Your task to perform on an android device: Open battery settings Image 0: 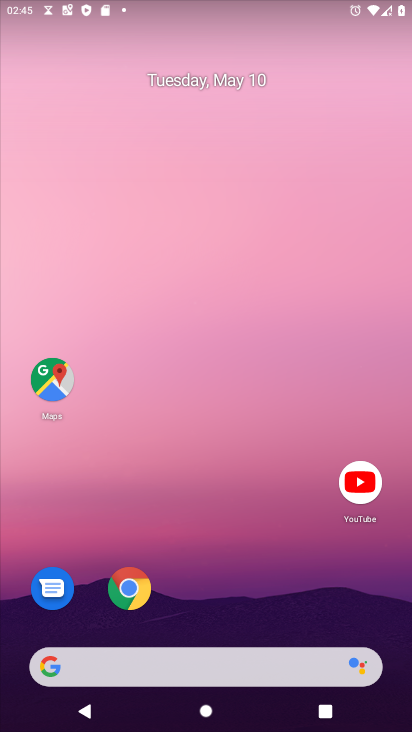
Step 0: drag from (229, 574) to (240, 295)
Your task to perform on an android device: Open battery settings Image 1: 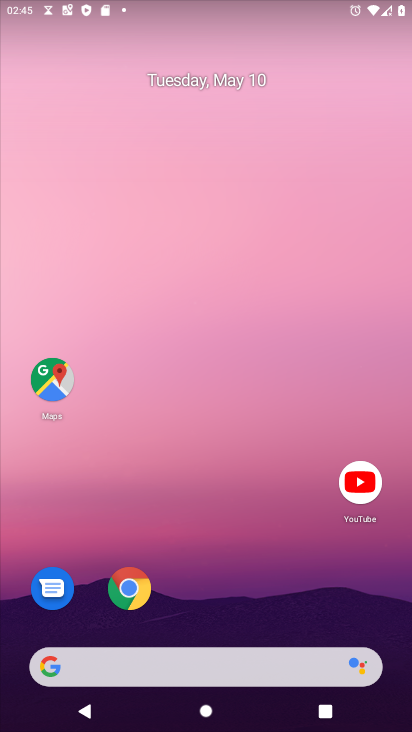
Step 1: drag from (294, 601) to (303, 276)
Your task to perform on an android device: Open battery settings Image 2: 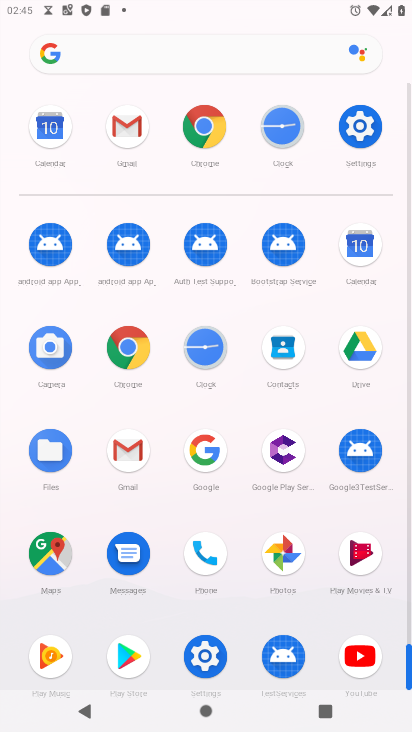
Step 2: click (361, 108)
Your task to perform on an android device: Open battery settings Image 3: 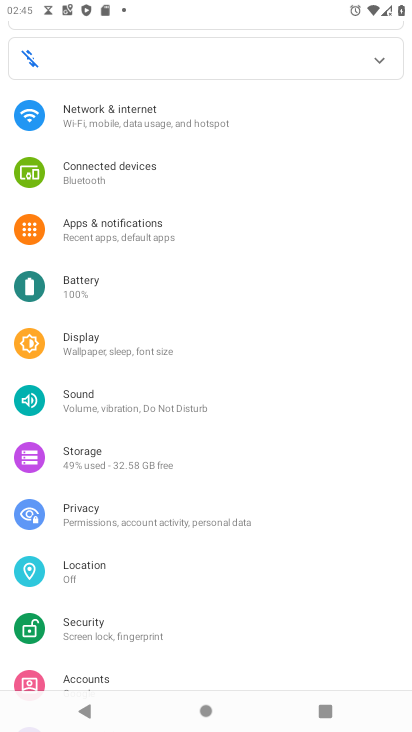
Step 3: click (105, 281)
Your task to perform on an android device: Open battery settings Image 4: 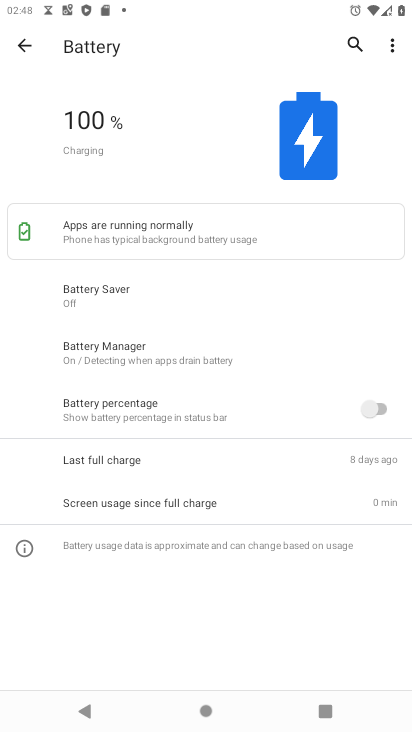
Step 4: task complete